Your task to perform on an android device: open wifi settings Image 0: 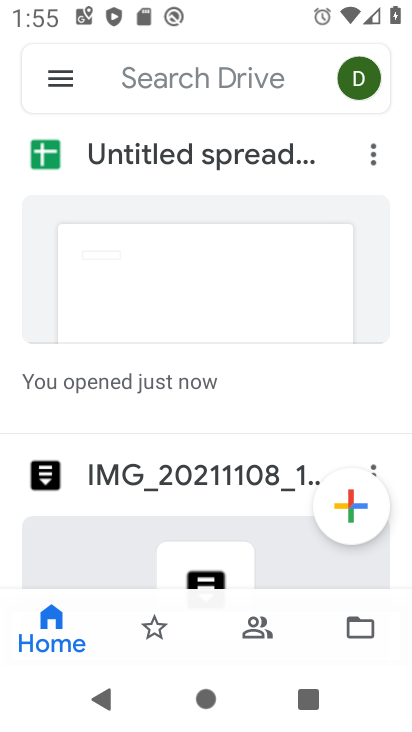
Step 0: press home button
Your task to perform on an android device: open wifi settings Image 1: 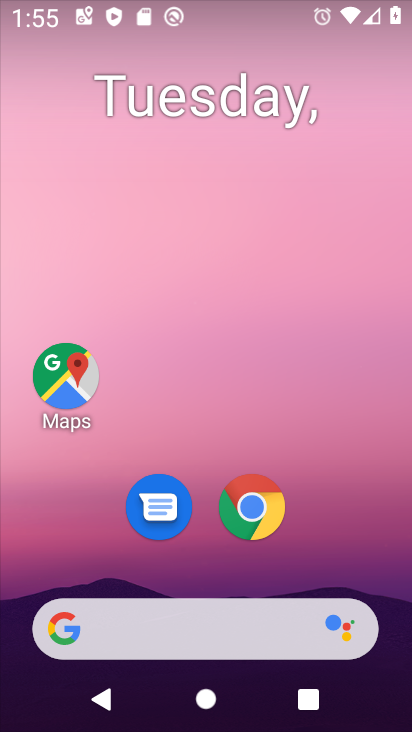
Step 1: drag from (313, 558) to (311, 188)
Your task to perform on an android device: open wifi settings Image 2: 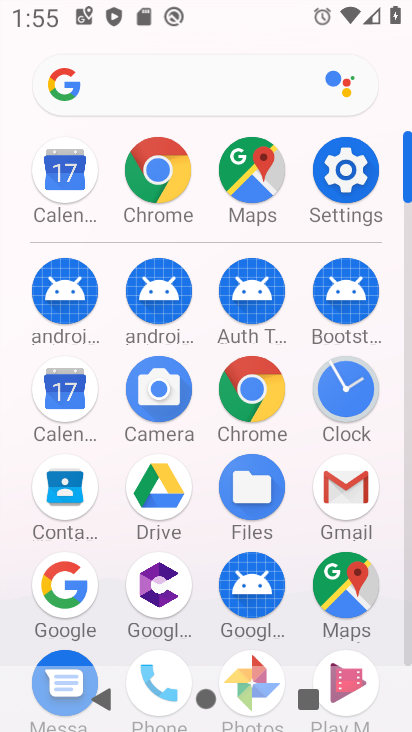
Step 2: click (331, 167)
Your task to perform on an android device: open wifi settings Image 3: 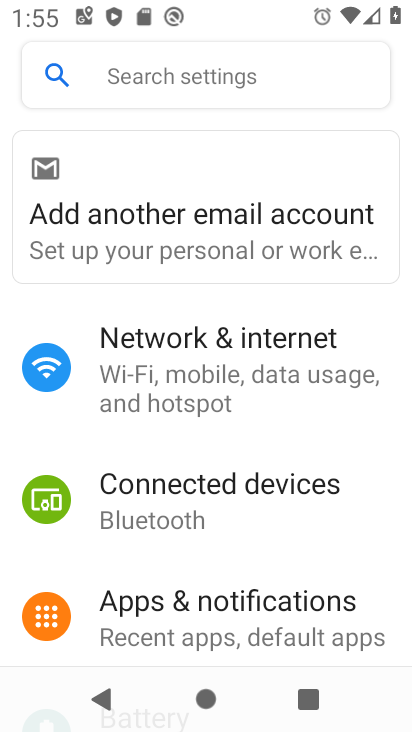
Step 3: click (201, 383)
Your task to perform on an android device: open wifi settings Image 4: 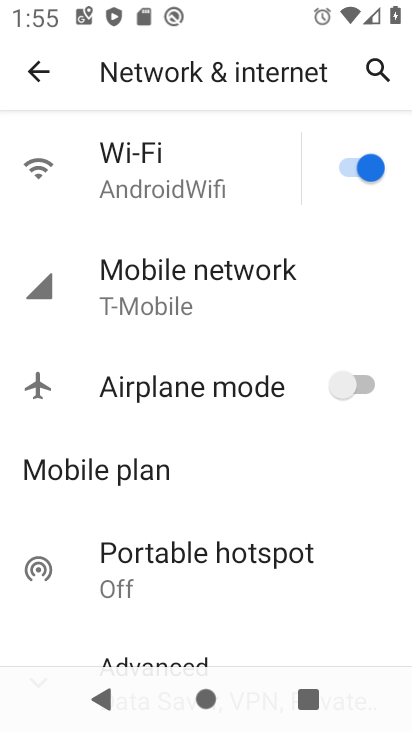
Step 4: task complete